Your task to perform on an android device: Open ESPN.com Image 0: 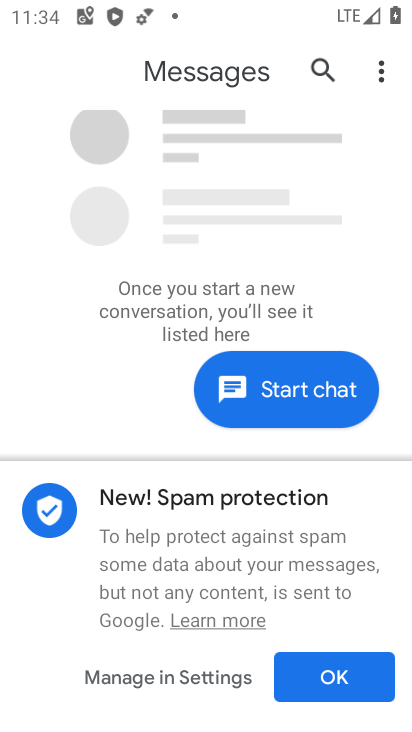
Step 0: press home button
Your task to perform on an android device: Open ESPN.com Image 1: 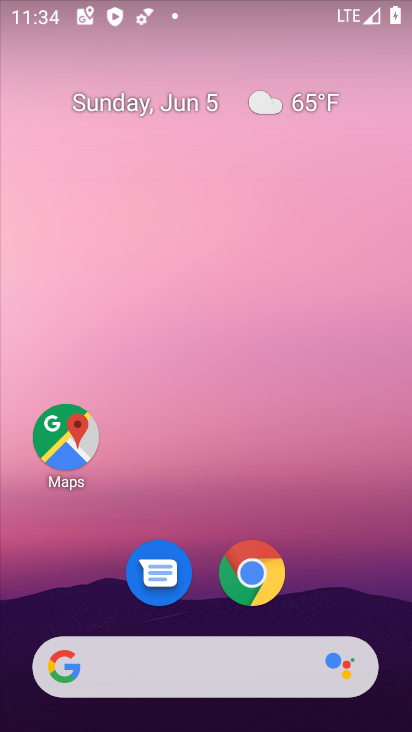
Step 1: drag from (247, 517) to (269, 104)
Your task to perform on an android device: Open ESPN.com Image 2: 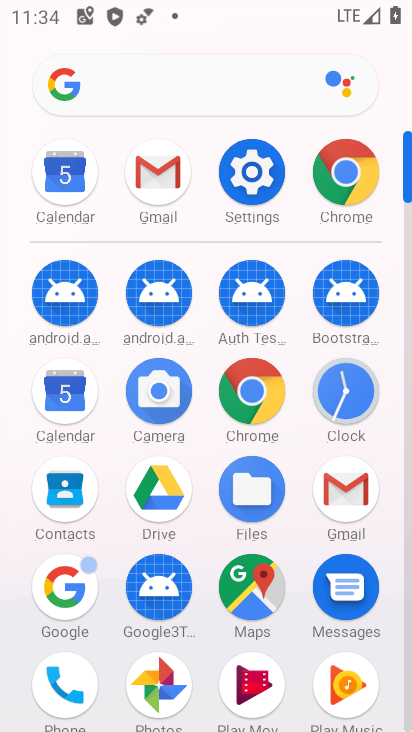
Step 2: drag from (211, 249) to (230, 50)
Your task to perform on an android device: Open ESPN.com Image 3: 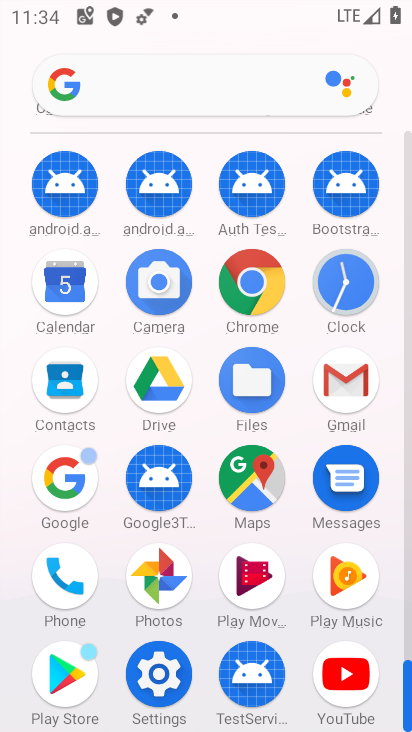
Step 3: click (252, 296)
Your task to perform on an android device: Open ESPN.com Image 4: 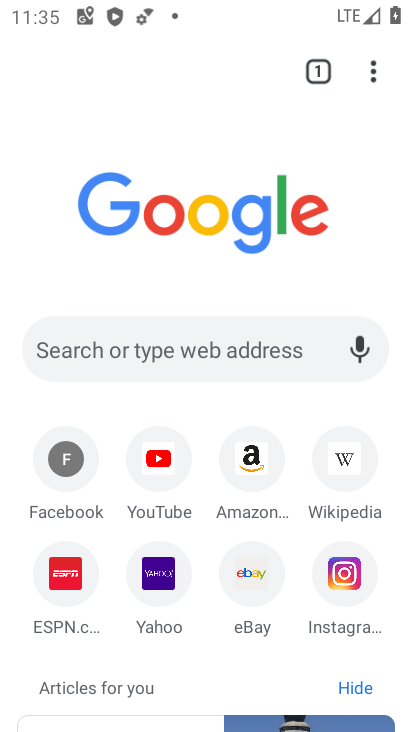
Step 4: drag from (265, 406) to (254, 126)
Your task to perform on an android device: Open ESPN.com Image 5: 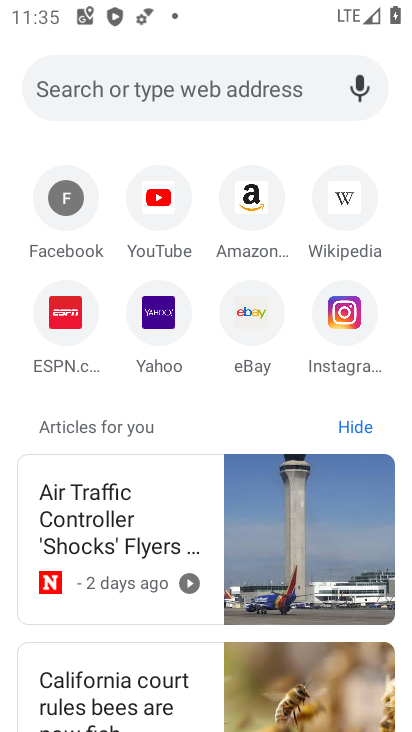
Step 5: click (85, 328)
Your task to perform on an android device: Open ESPN.com Image 6: 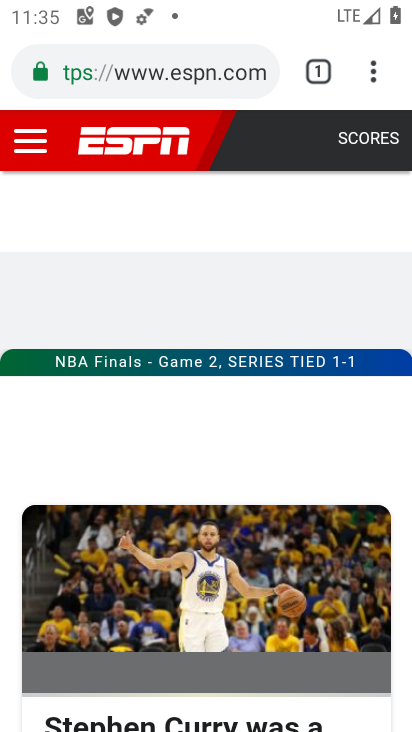
Step 6: task complete